Your task to perform on an android device: Search for vegetarian restaurants on Maps Image 0: 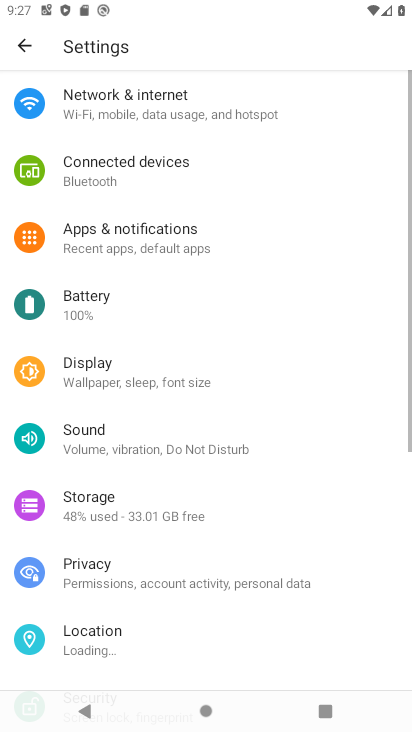
Step 0: press home button
Your task to perform on an android device: Search for vegetarian restaurants on Maps Image 1: 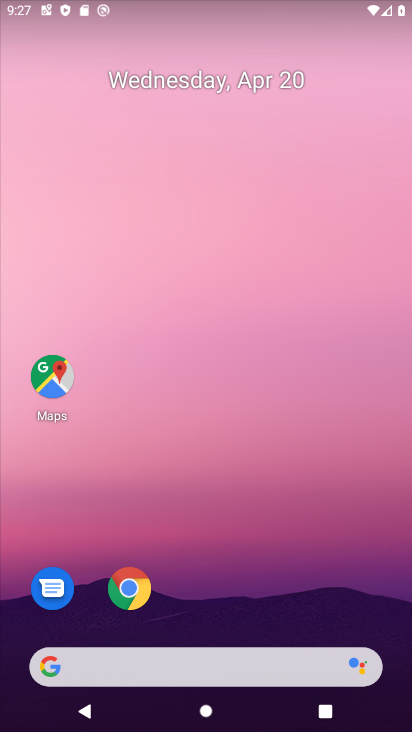
Step 1: click (50, 375)
Your task to perform on an android device: Search for vegetarian restaurants on Maps Image 2: 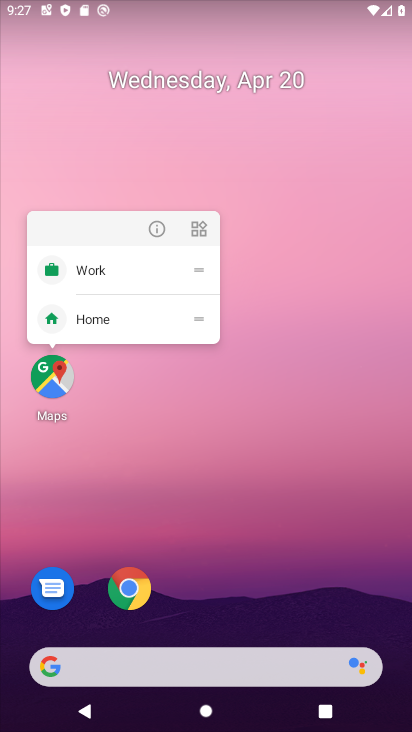
Step 2: click (50, 375)
Your task to perform on an android device: Search for vegetarian restaurants on Maps Image 3: 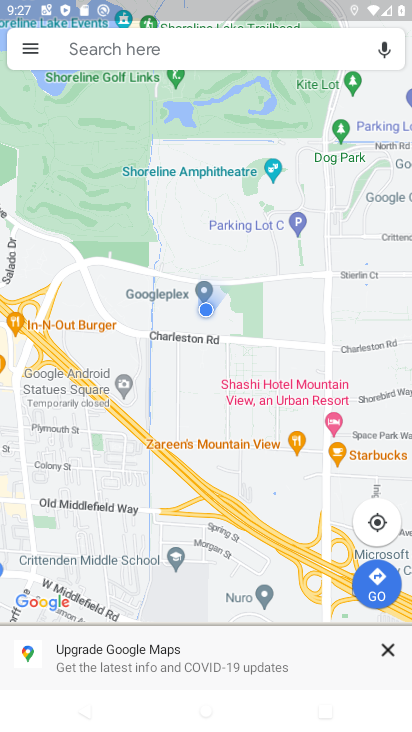
Step 3: click (201, 52)
Your task to perform on an android device: Search for vegetarian restaurants on Maps Image 4: 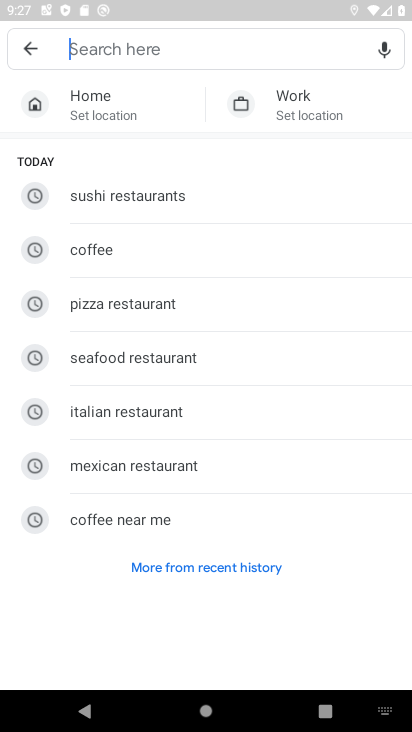
Step 4: type "vegetarian restaurants"
Your task to perform on an android device: Search for vegetarian restaurants on Maps Image 5: 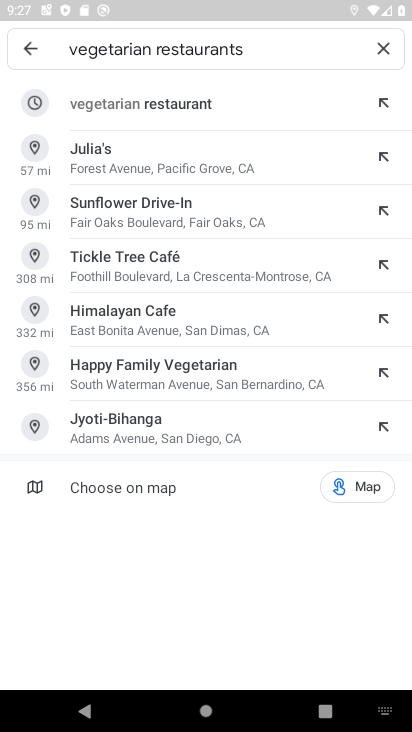
Step 5: click (122, 99)
Your task to perform on an android device: Search for vegetarian restaurants on Maps Image 6: 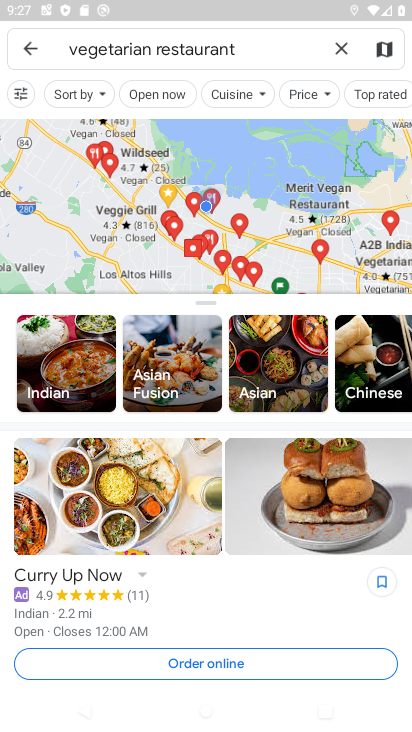
Step 6: task complete